Your task to perform on an android device: Search for the best value 4K TV on Best Buy Image 0: 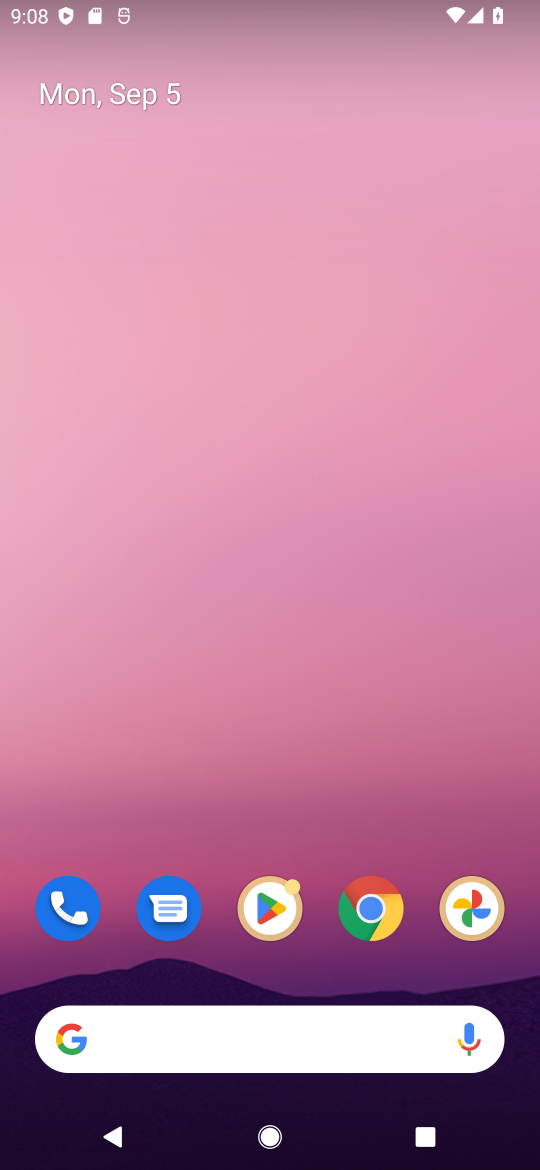
Step 0: drag from (201, 426) to (537, 5)
Your task to perform on an android device: Search for the best value 4K TV on Best Buy Image 1: 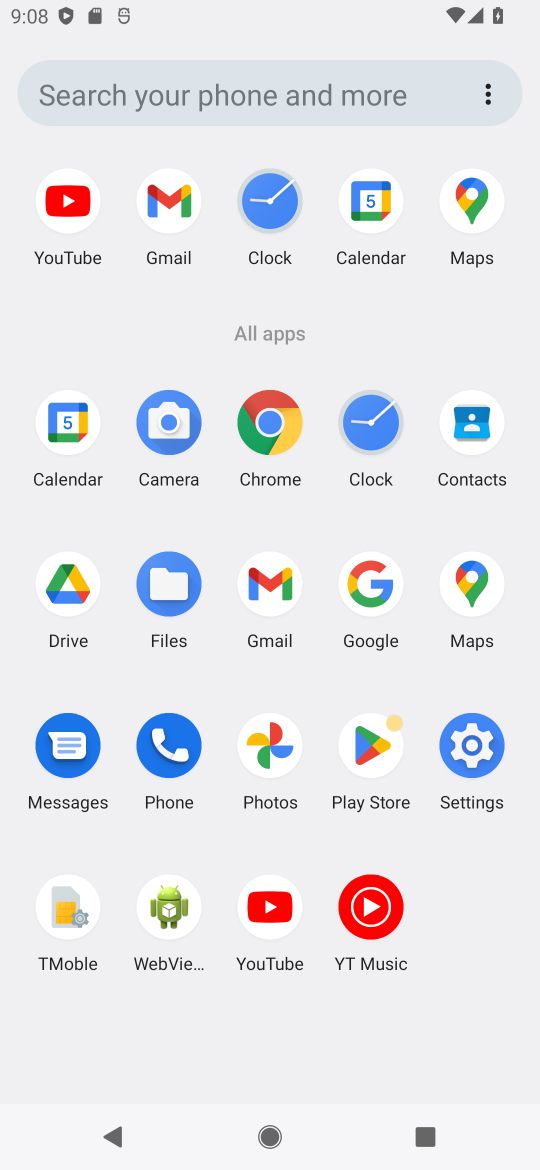
Step 1: click (280, 470)
Your task to perform on an android device: Search for the best value 4K TV on Best Buy Image 2: 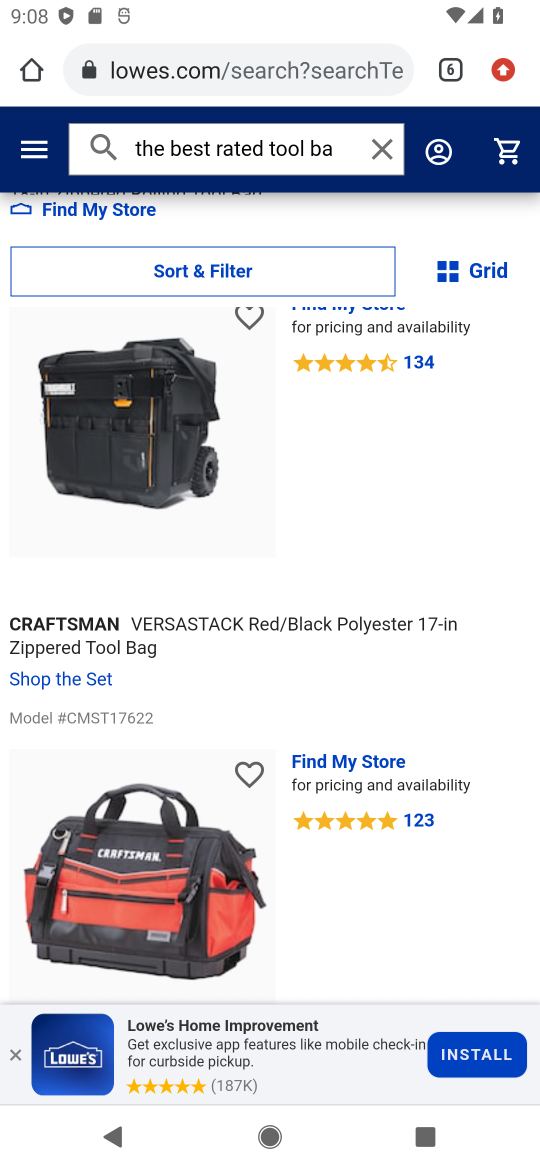
Step 2: click (378, 63)
Your task to perform on an android device: Search for the best value 4K TV on Best Buy Image 3: 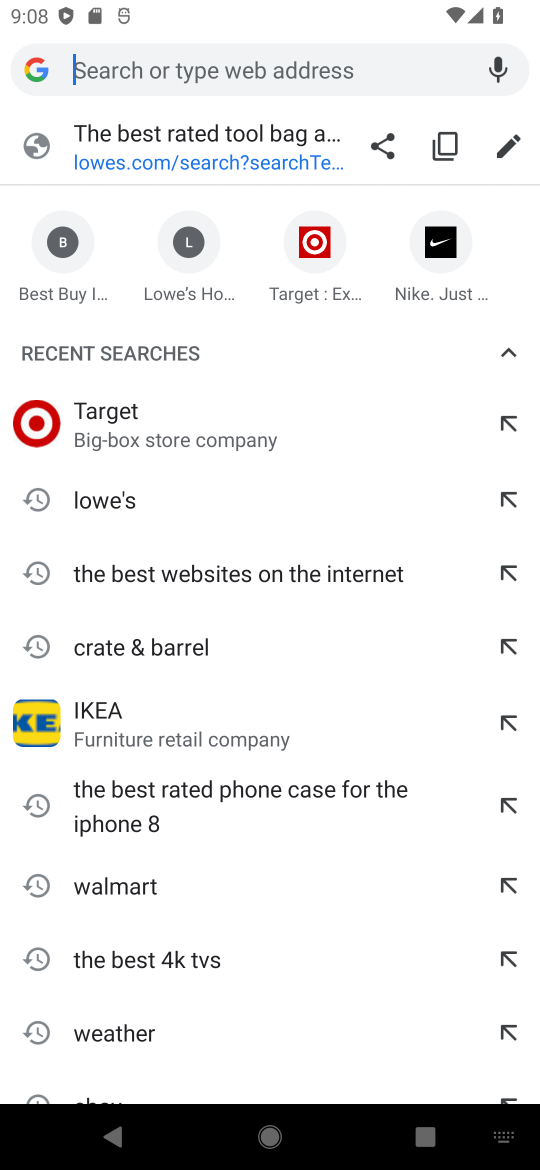
Step 3: type "Best Buy"
Your task to perform on an android device: Search for the best value 4K TV on Best Buy Image 4: 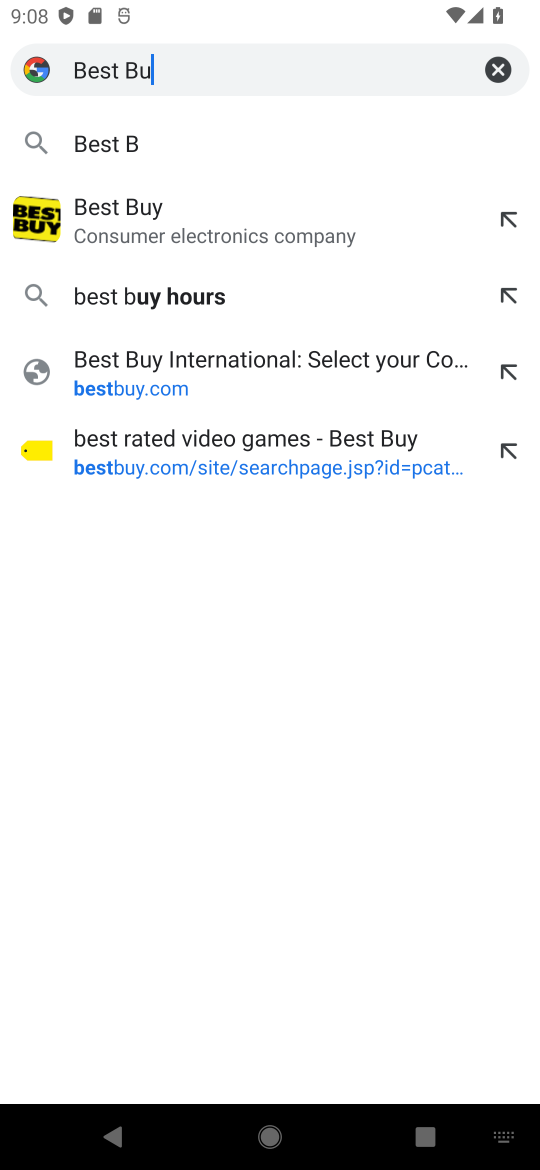
Step 4: type ""
Your task to perform on an android device: Search for the best value 4K TV on Best Buy Image 5: 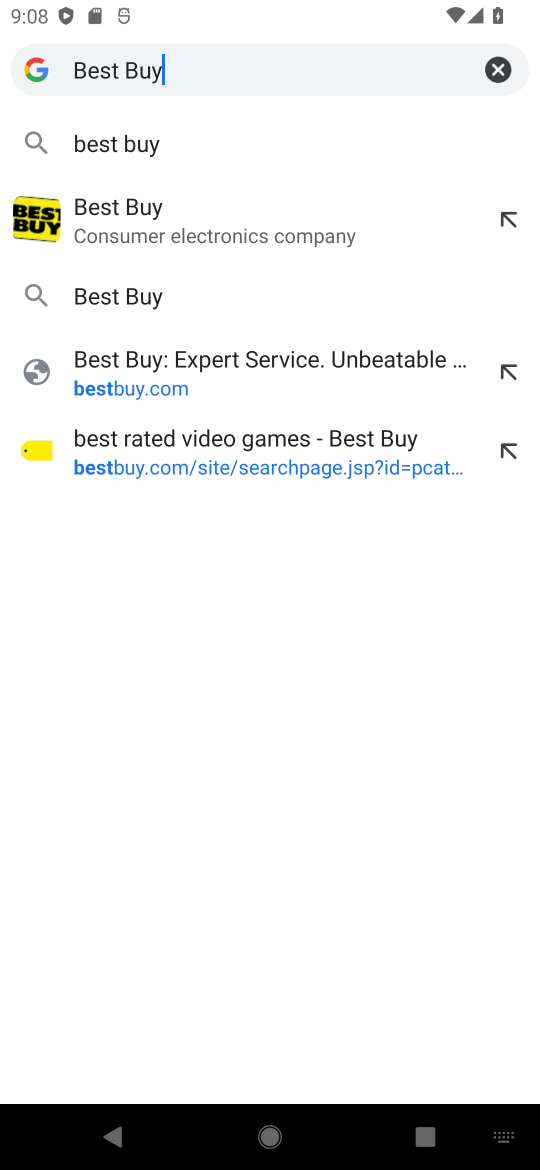
Step 5: click (158, 137)
Your task to perform on an android device: Search for the best value 4K TV on Best Buy Image 6: 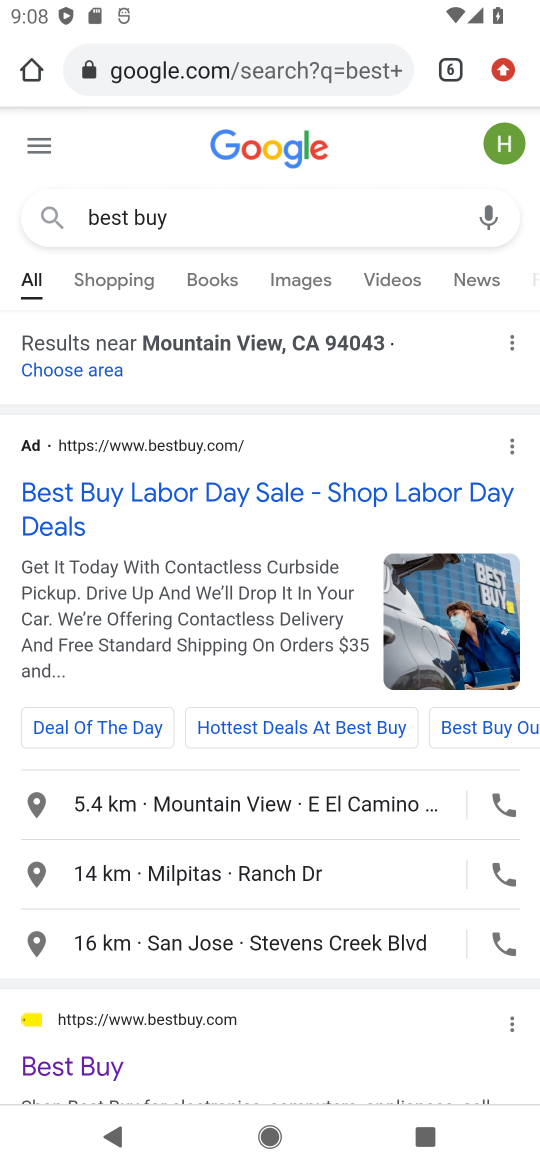
Step 6: click (136, 502)
Your task to perform on an android device: Search for the best value 4K TV on Best Buy Image 7: 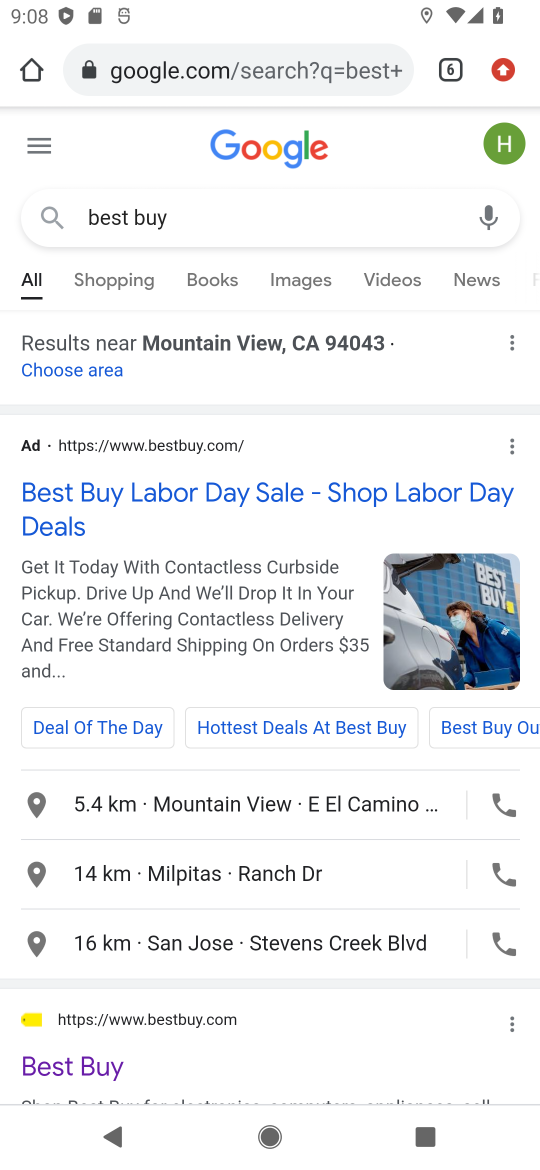
Step 7: click (136, 497)
Your task to perform on an android device: Search for the best value 4K TV on Best Buy Image 8: 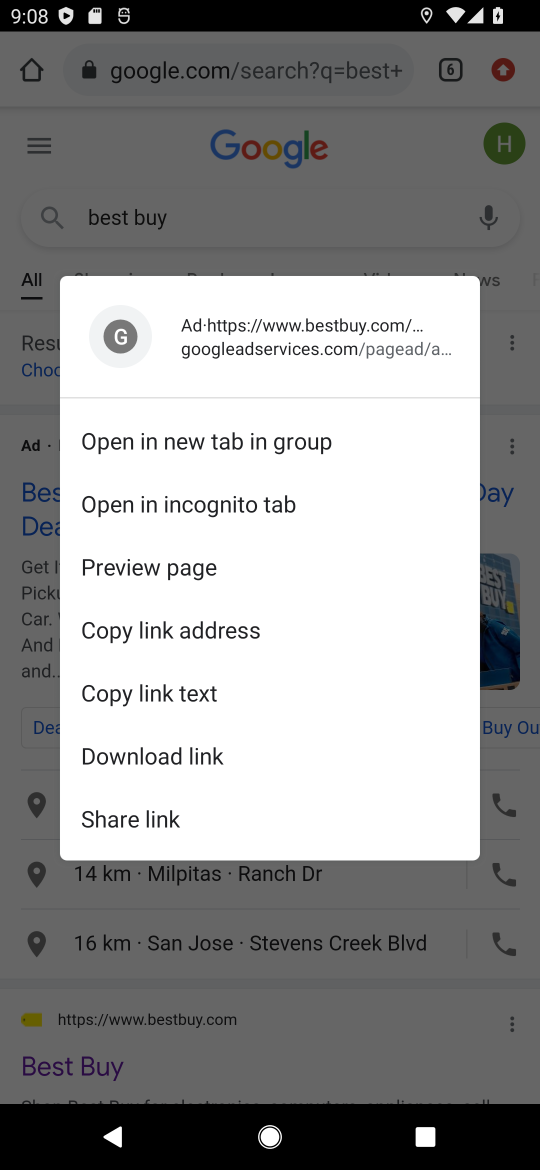
Step 8: click (243, 262)
Your task to perform on an android device: Search for the best value 4K TV on Best Buy Image 9: 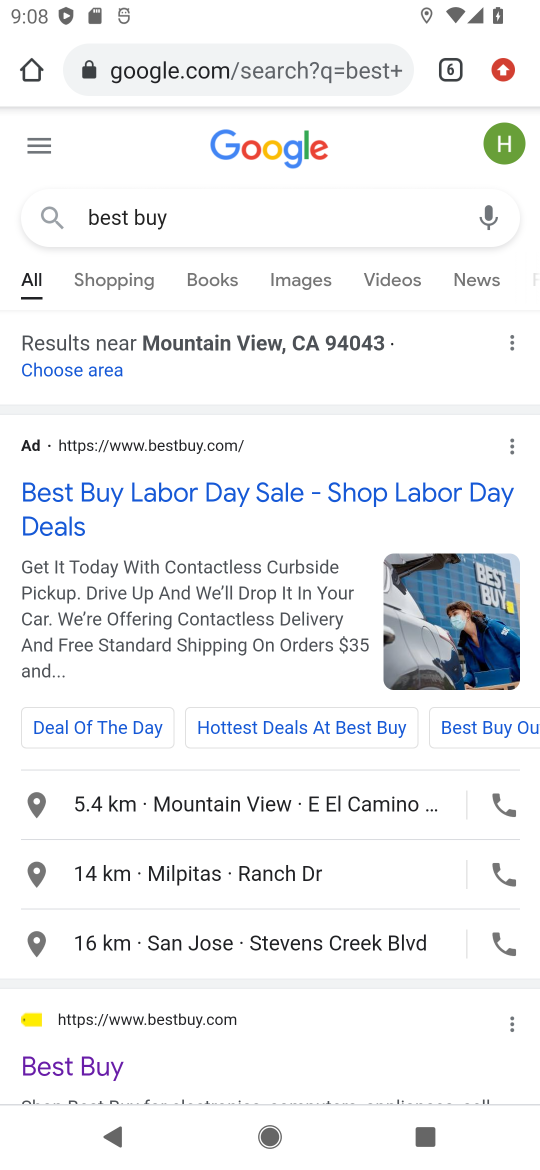
Step 9: click (173, 492)
Your task to perform on an android device: Search for the best value 4K TV on Best Buy Image 10: 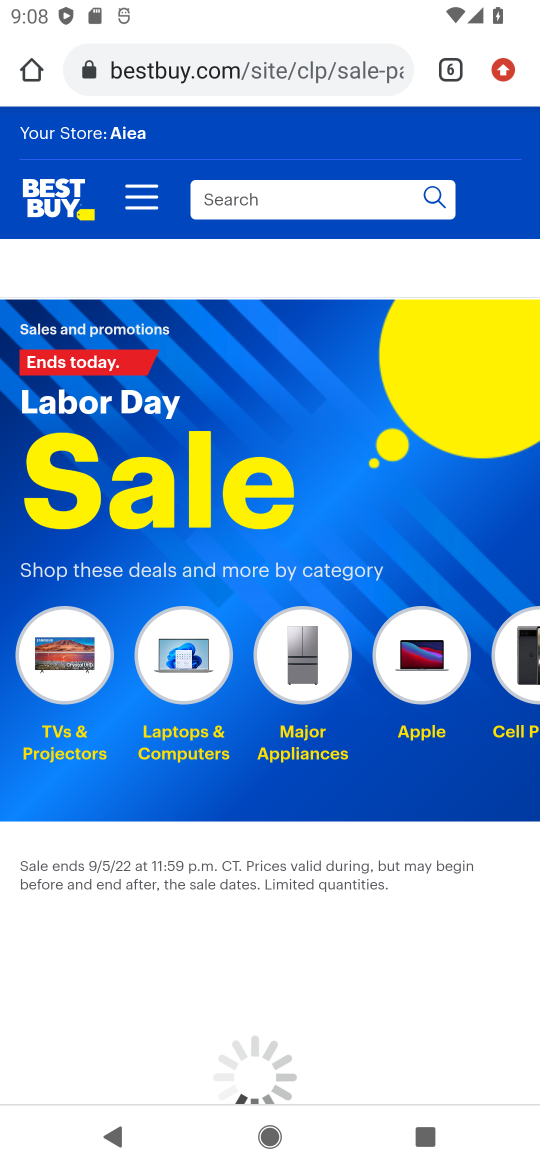
Step 10: click (287, 213)
Your task to perform on an android device: Search for the best value 4K TV on Best Buy Image 11: 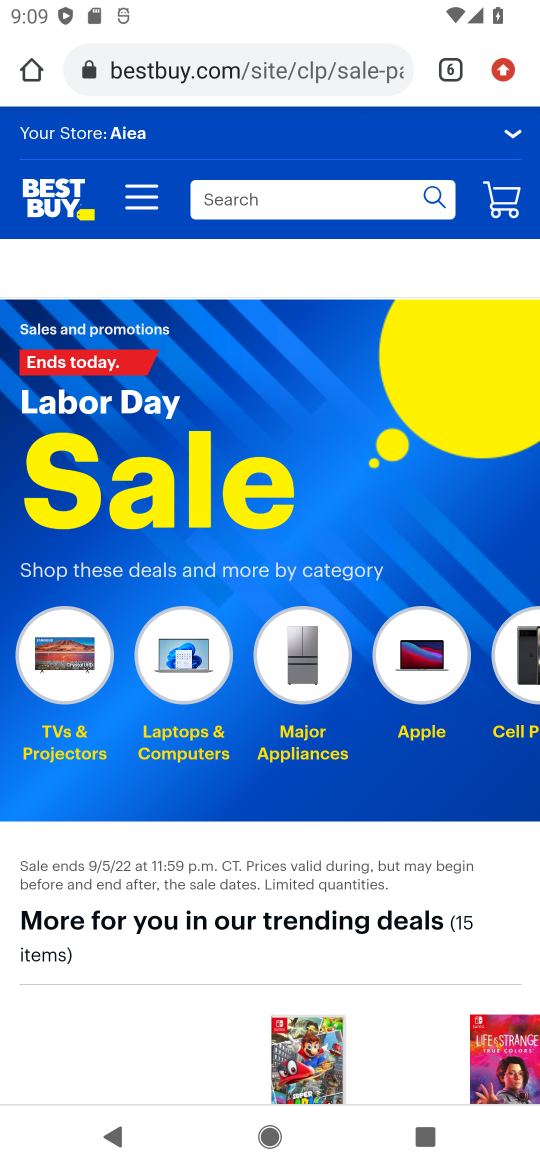
Step 11: click (213, 209)
Your task to perform on an android device: Search for the best value 4K TV on Best Buy Image 12: 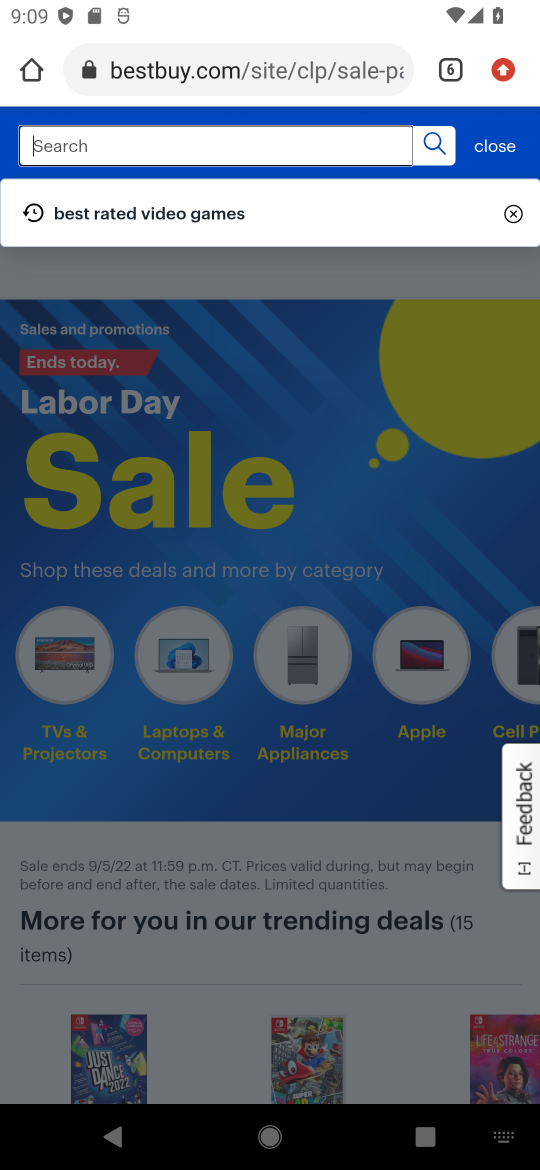
Step 12: type "the best value 4K TV"
Your task to perform on an android device: Search for the best value 4K TV on Best Buy Image 13: 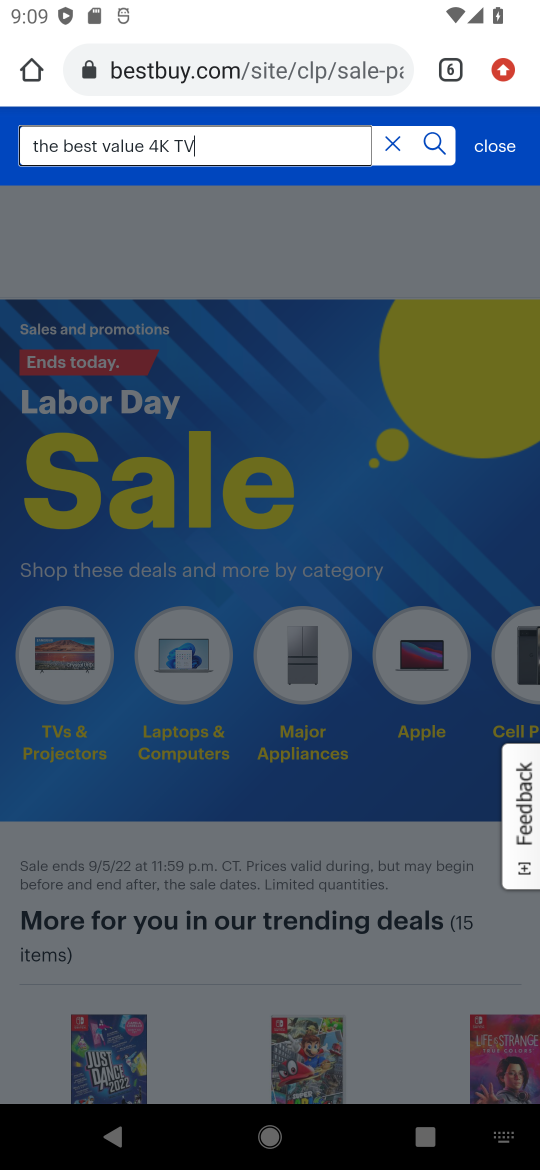
Step 13: click (435, 152)
Your task to perform on an android device: Search for the best value 4K TV on Best Buy Image 14: 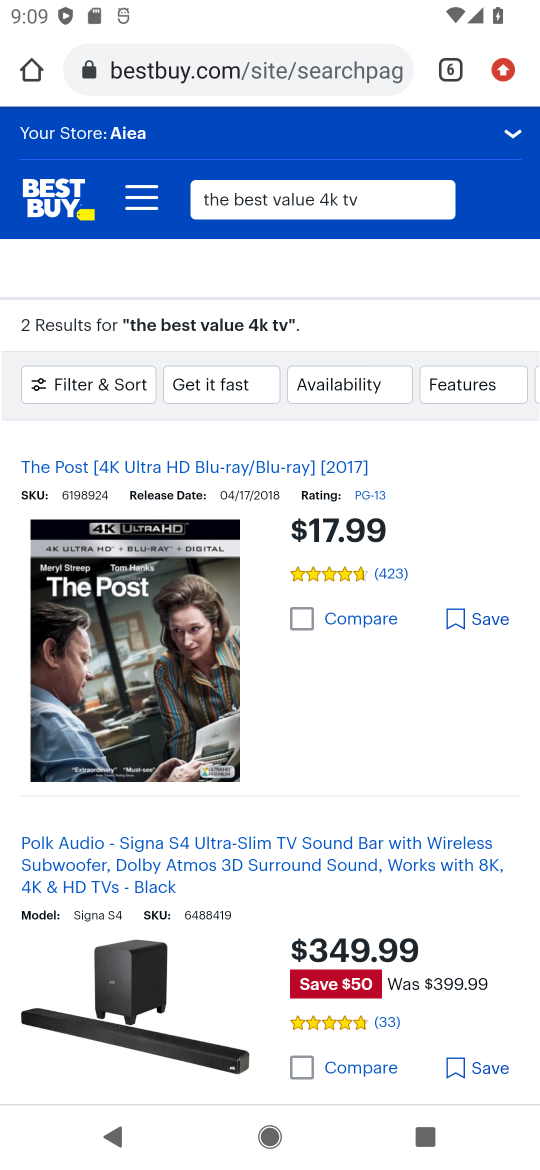
Step 14: task complete